Your task to perform on an android device: Search for sushi restaurants on Maps Image 0: 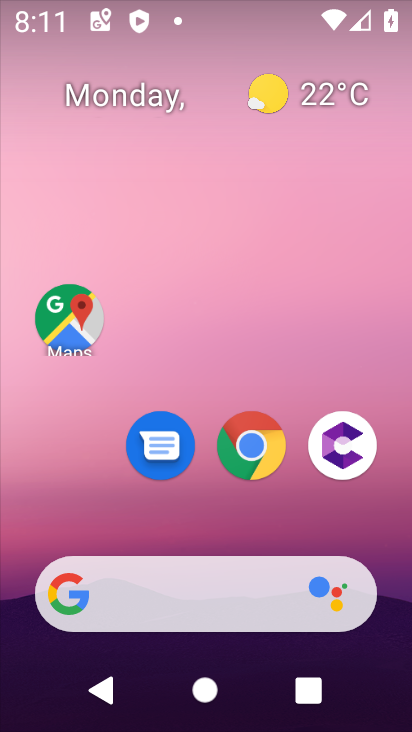
Step 0: click (60, 321)
Your task to perform on an android device: Search for sushi restaurants on Maps Image 1: 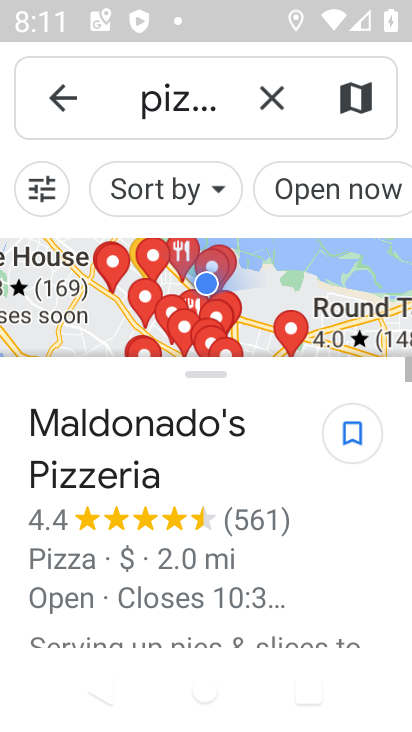
Step 1: click (268, 98)
Your task to perform on an android device: Search for sushi restaurants on Maps Image 2: 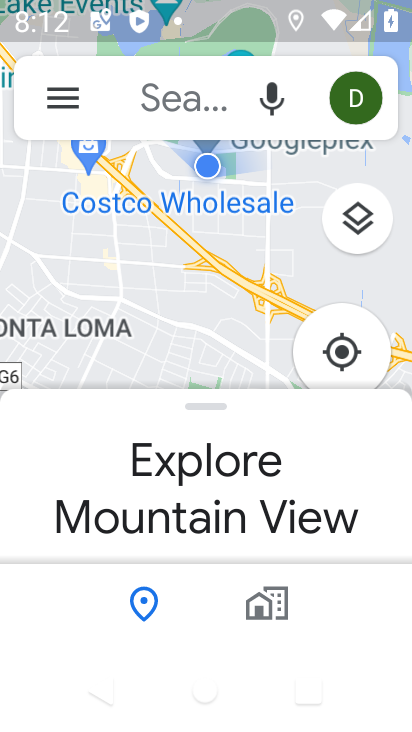
Step 2: click (177, 106)
Your task to perform on an android device: Search for sushi restaurants on Maps Image 3: 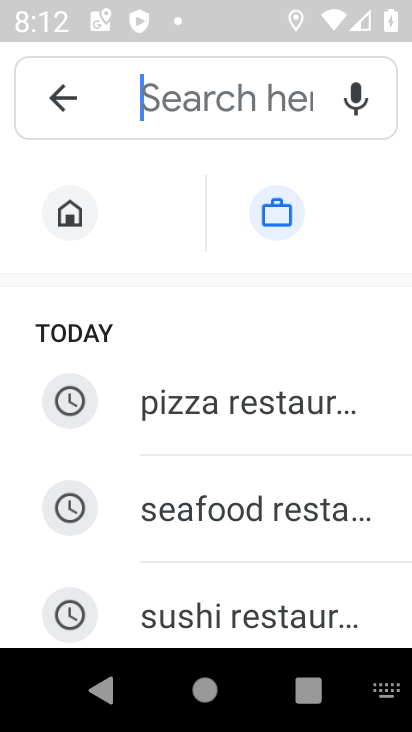
Step 3: click (236, 630)
Your task to perform on an android device: Search for sushi restaurants on Maps Image 4: 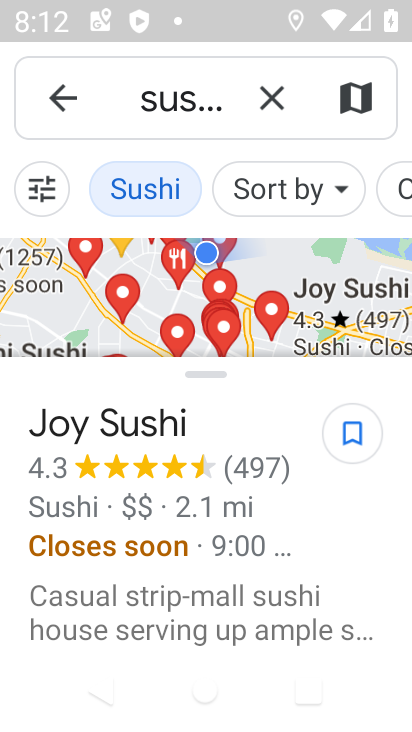
Step 4: task complete